Your task to perform on an android device: check data usage Image 0: 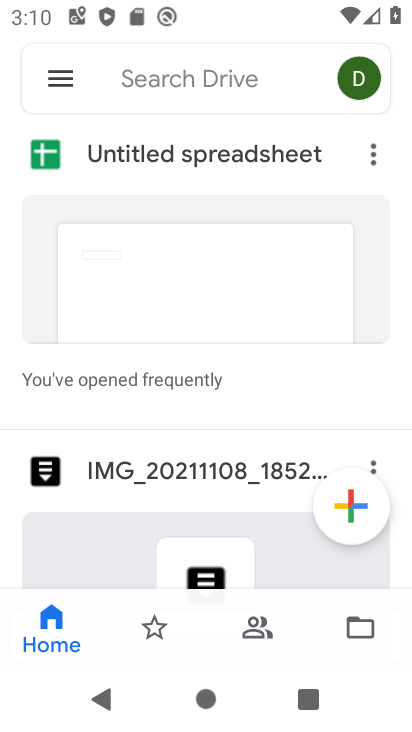
Step 0: press home button
Your task to perform on an android device: check data usage Image 1: 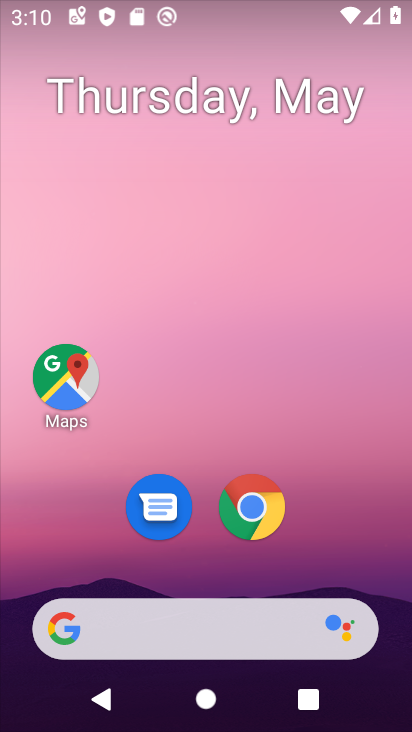
Step 1: drag from (300, 547) to (318, 88)
Your task to perform on an android device: check data usage Image 2: 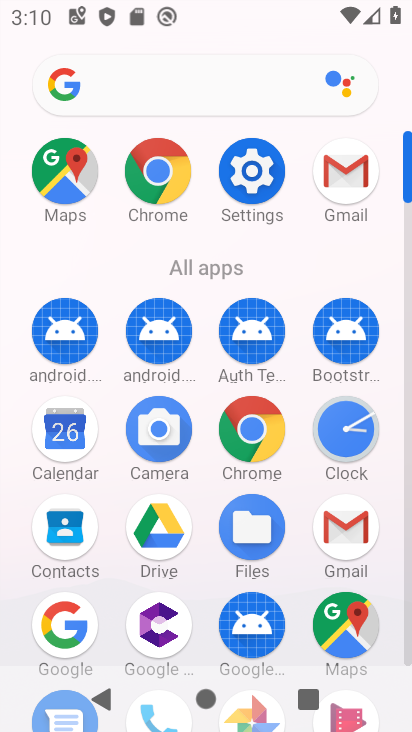
Step 2: drag from (253, 3) to (169, 613)
Your task to perform on an android device: check data usage Image 3: 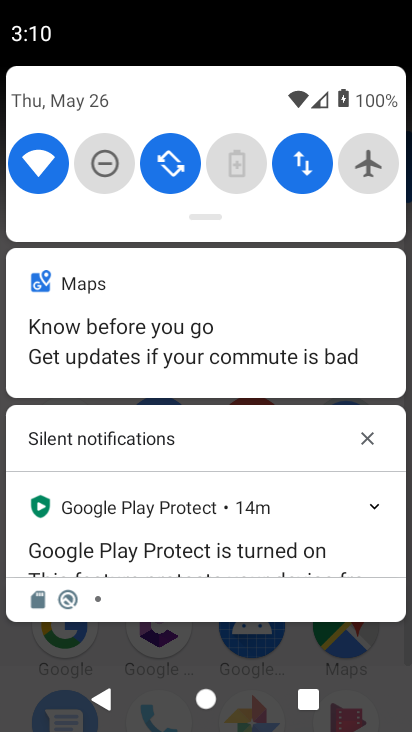
Step 3: click (306, 153)
Your task to perform on an android device: check data usage Image 4: 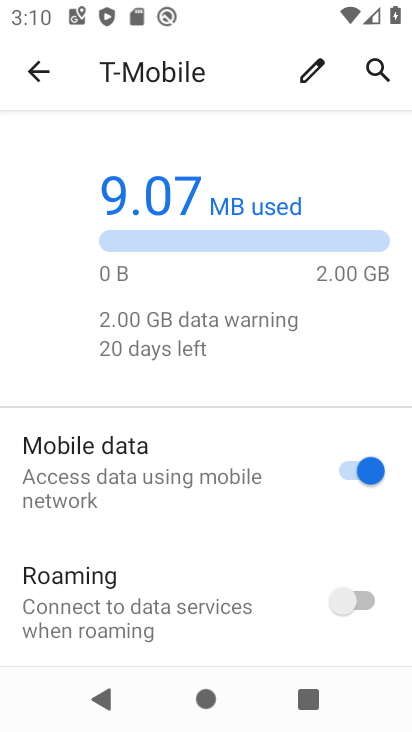
Step 4: task complete